Your task to perform on an android device: Turn off the flashlight Image 0: 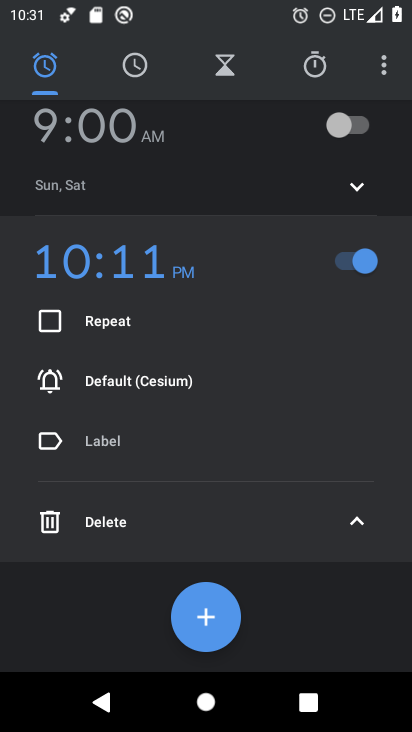
Step 0: press home button
Your task to perform on an android device: Turn off the flashlight Image 1: 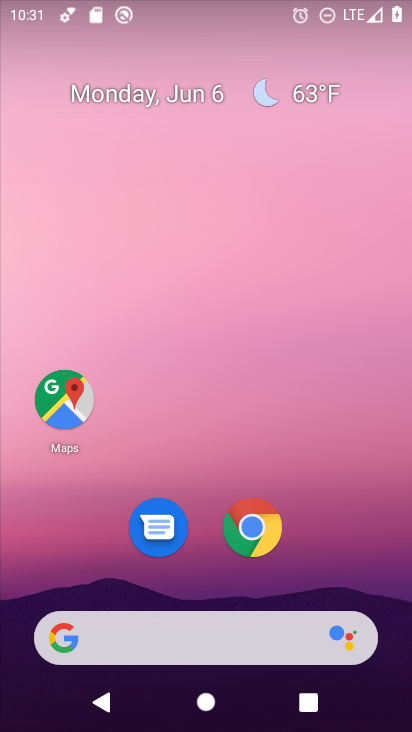
Step 1: drag from (270, 7) to (265, 330)
Your task to perform on an android device: Turn off the flashlight Image 2: 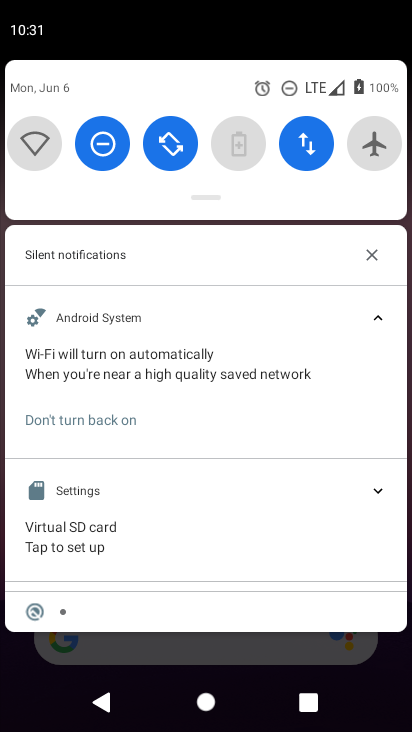
Step 2: drag from (206, 77) to (209, 313)
Your task to perform on an android device: Turn off the flashlight Image 3: 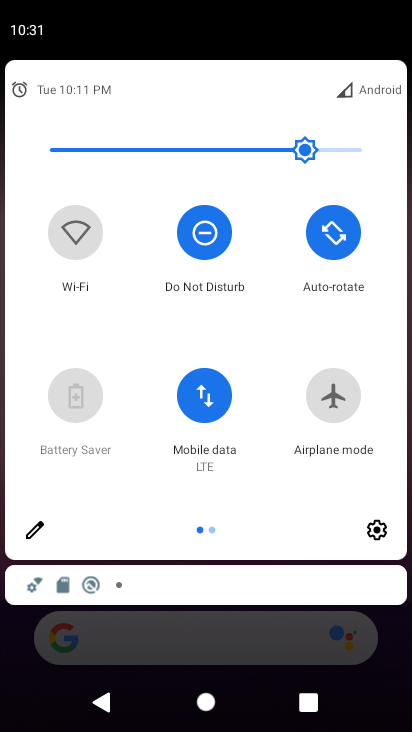
Step 3: click (31, 528)
Your task to perform on an android device: Turn off the flashlight Image 4: 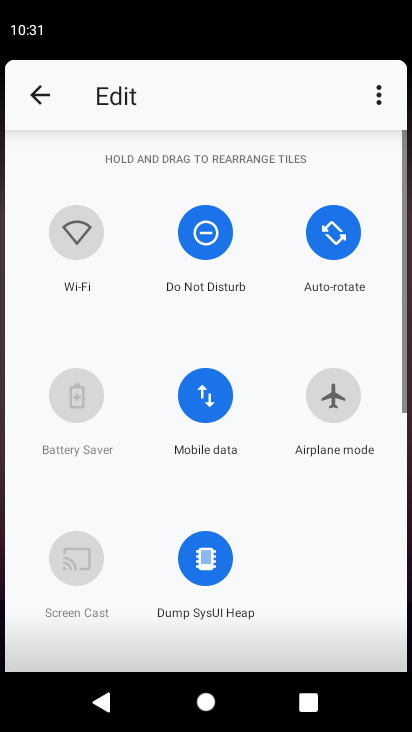
Step 4: task complete